Your task to perform on an android device: Open calendar and show me the fourth week of next month Image 0: 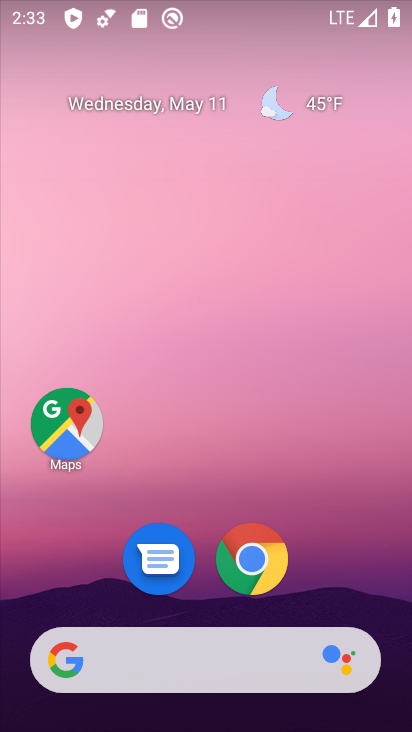
Step 0: click (189, 93)
Your task to perform on an android device: Open calendar and show me the fourth week of next month Image 1: 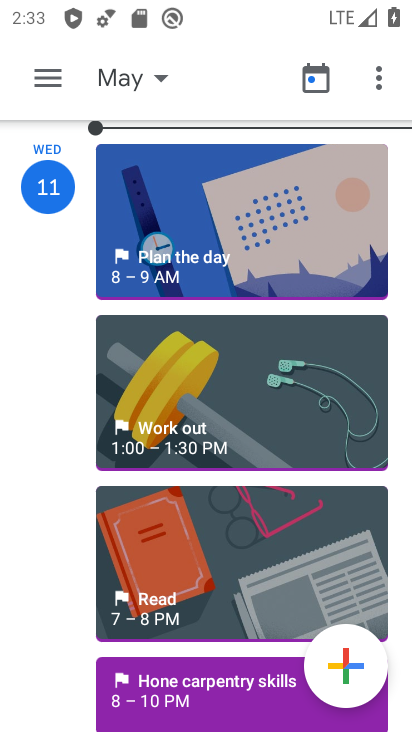
Step 1: click (154, 73)
Your task to perform on an android device: Open calendar and show me the fourth week of next month Image 2: 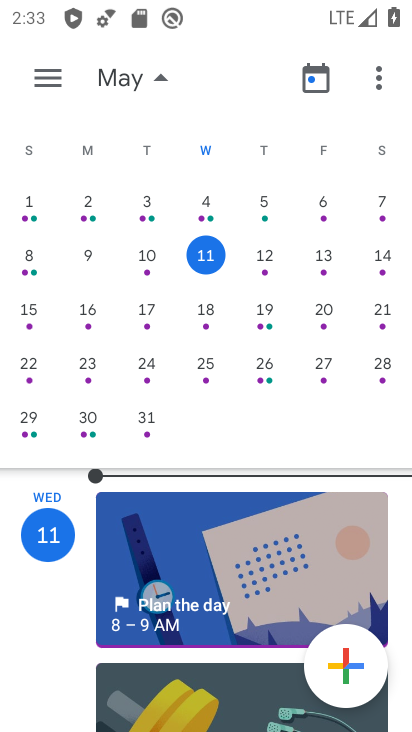
Step 2: click (42, 81)
Your task to perform on an android device: Open calendar and show me the fourth week of next month Image 3: 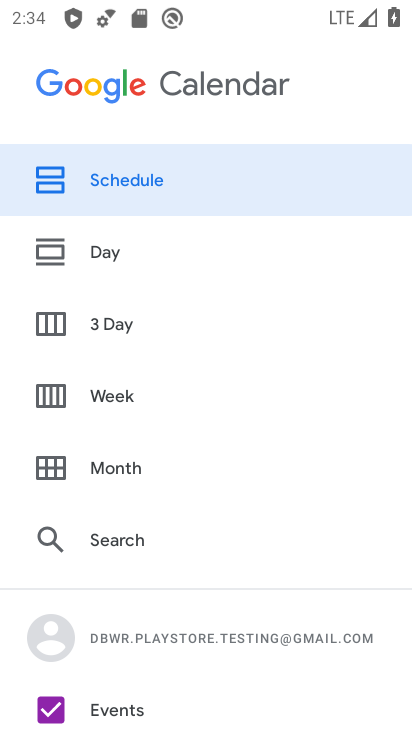
Step 3: click (112, 398)
Your task to perform on an android device: Open calendar and show me the fourth week of next month Image 4: 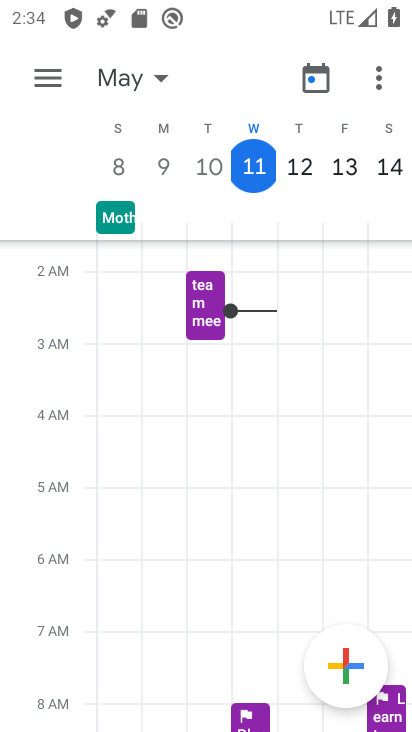
Step 4: click (153, 78)
Your task to perform on an android device: Open calendar and show me the fourth week of next month Image 5: 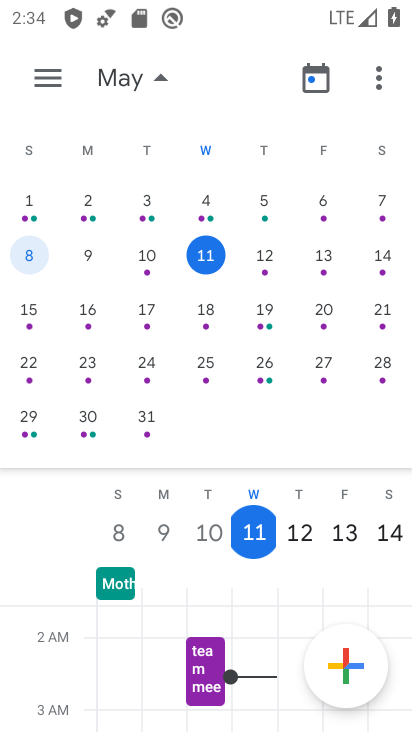
Step 5: drag from (366, 275) to (3, 291)
Your task to perform on an android device: Open calendar and show me the fourth week of next month Image 6: 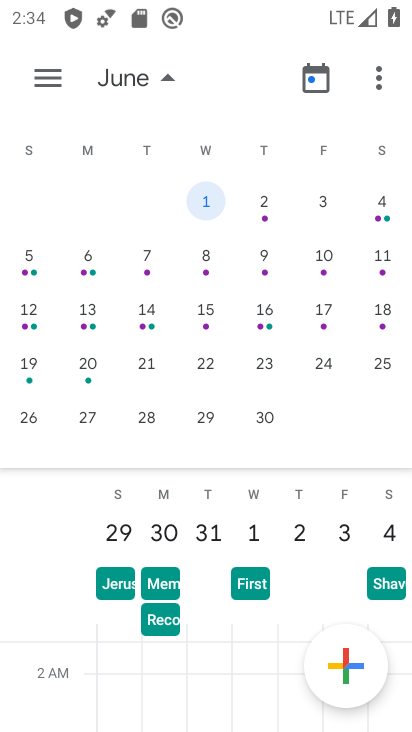
Step 6: click (43, 361)
Your task to perform on an android device: Open calendar and show me the fourth week of next month Image 7: 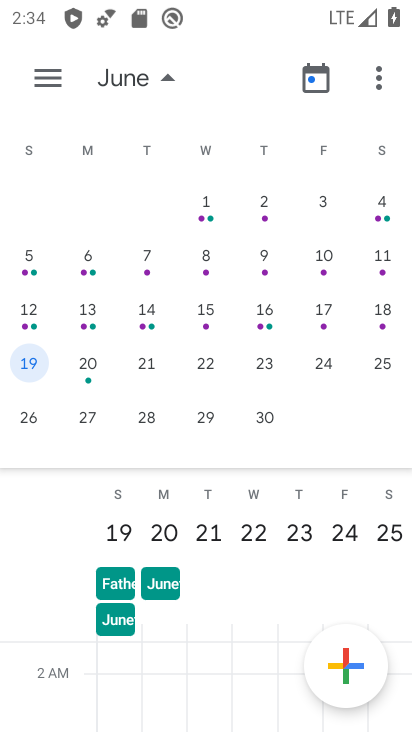
Step 7: task complete